Your task to perform on an android device: open a bookmark in the chrome app Image 0: 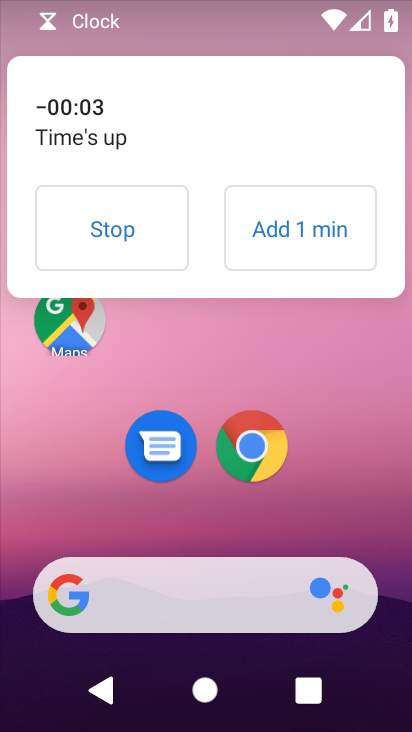
Step 0: click (109, 230)
Your task to perform on an android device: open a bookmark in the chrome app Image 1: 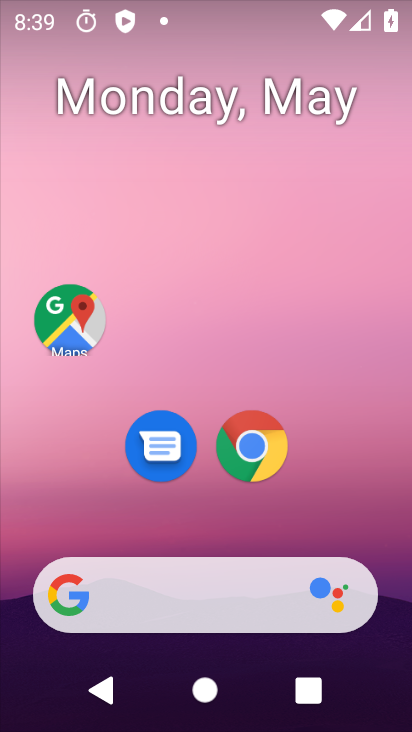
Step 1: click (255, 456)
Your task to perform on an android device: open a bookmark in the chrome app Image 2: 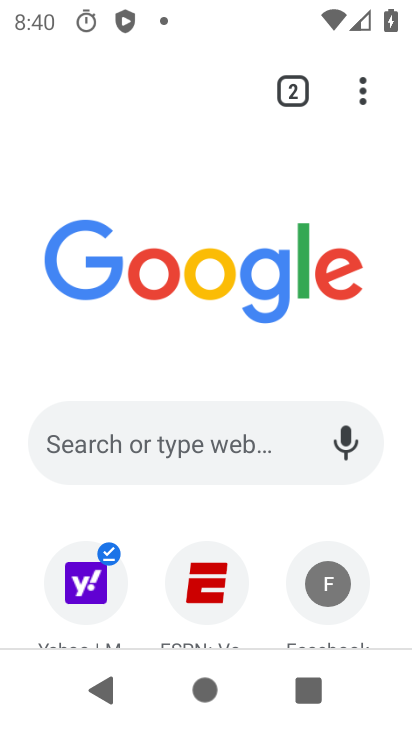
Step 2: click (366, 91)
Your task to perform on an android device: open a bookmark in the chrome app Image 3: 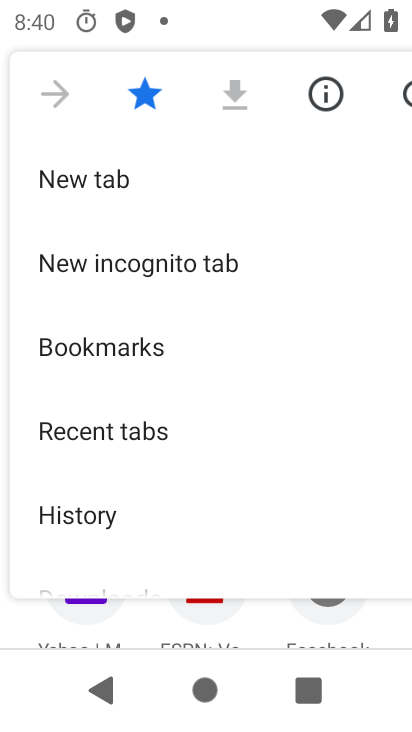
Step 3: click (120, 362)
Your task to perform on an android device: open a bookmark in the chrome app Image 4: 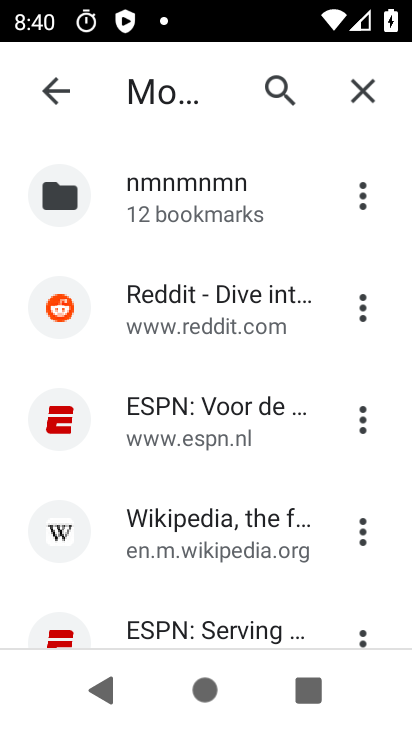
Step 4: click (160, 412)
Your task to perform on an android device: open a bookmark in the chrome app Image 5: 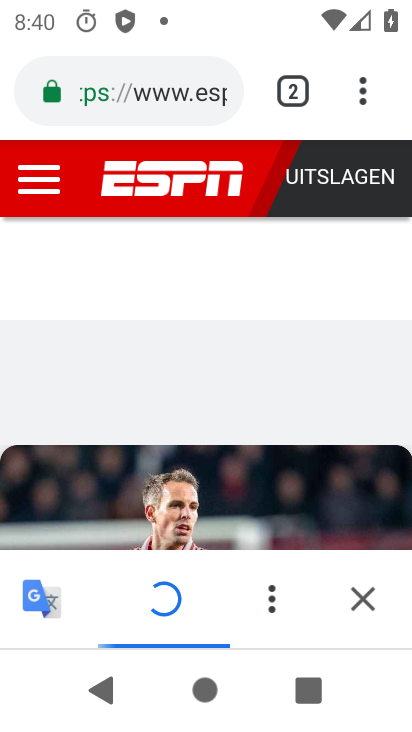
Step 5: task complete